Your task to perform on an android device: turn off sleep mode Image 0: 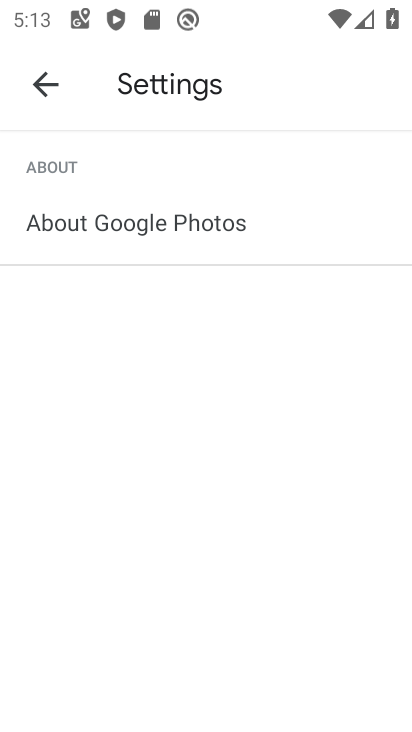
Step 0: press home button
Your task to perform on an android device: turn off sleep mode Image 1: 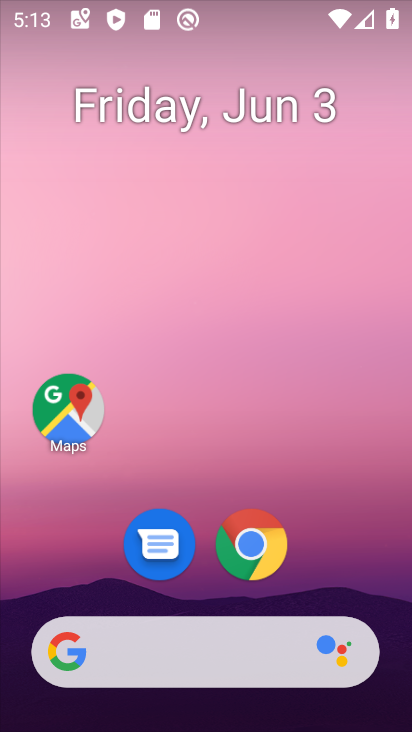
Step 1: drag from (337, 567) to (354, 70)
Your task to perform on an android device: turn off sleep mode Image 2: 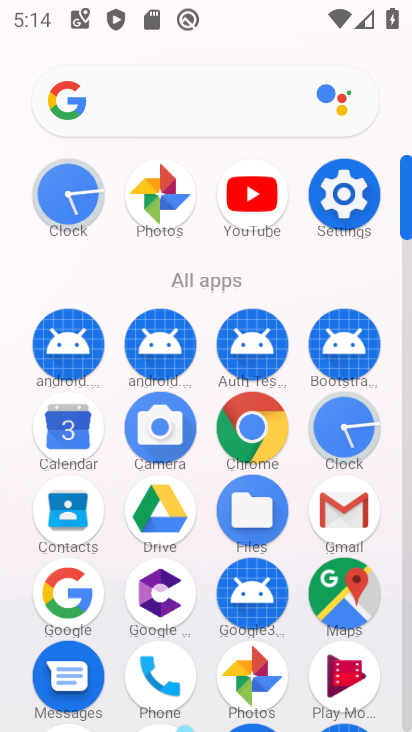
Step 2: click (355, 192)
Your task to perform on an android device: turn off sleep mode Image 3: 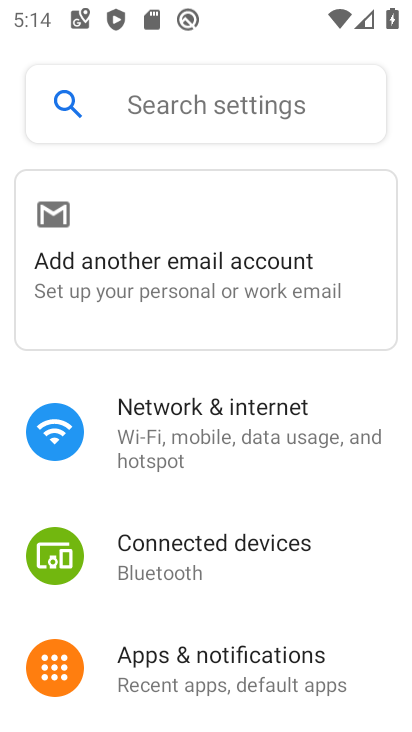
Step 3: drag from (324, 566) to (351, 206)
Your task to perform on an android device: turn off sleep mode Image 4: 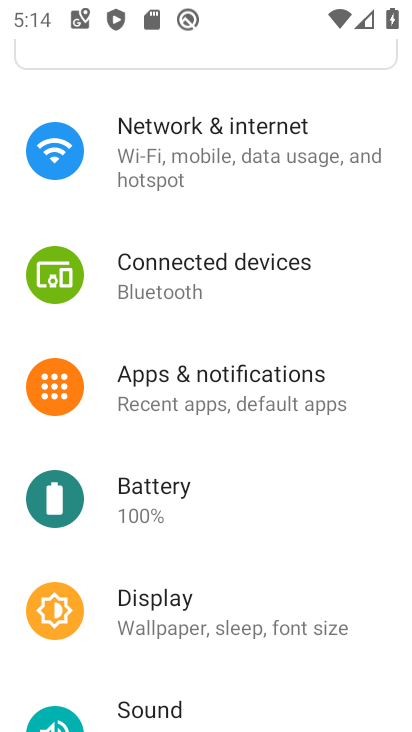
Step 4: click (176, 619)
Your task to perform on an android device: turn off sleep mode Image 5: 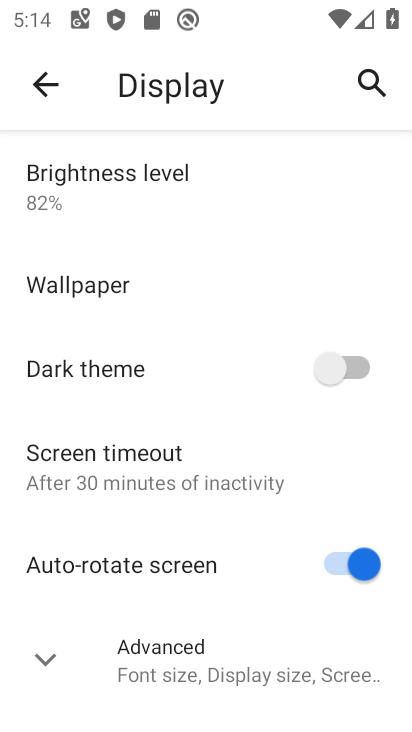
Step 5: task complete